Your task to perform on an android device: toggle improve location accuracy Image 0: 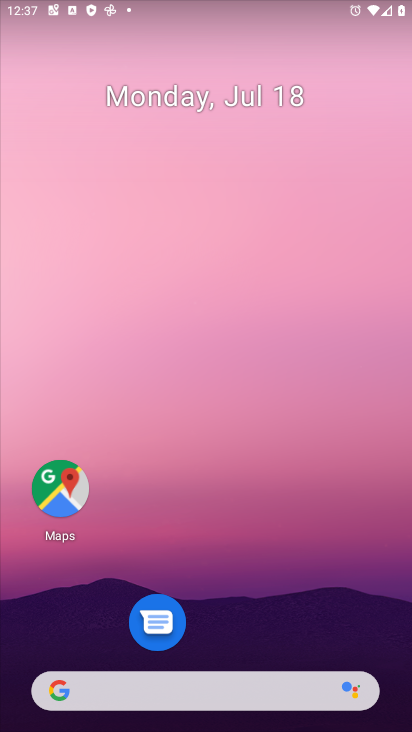
Step 0: drag from (274, 721) to (209, 243)
Your task to perform on an android device: toggle improve location accuracy Image 1: 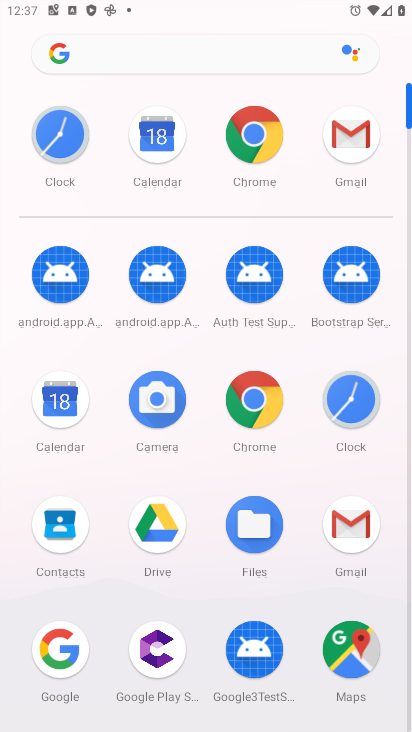
Step 1: drag from (267, 589) to (194, 153)
Your task to perform on an android device: toggle improve location accuracy Image 2: 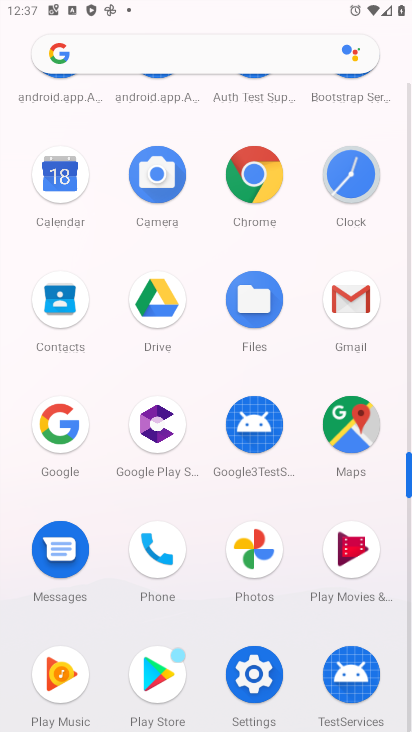
Step 2: click (257, 659)
Your task to perform on an android device: toggle improve location accuracy Image 3: 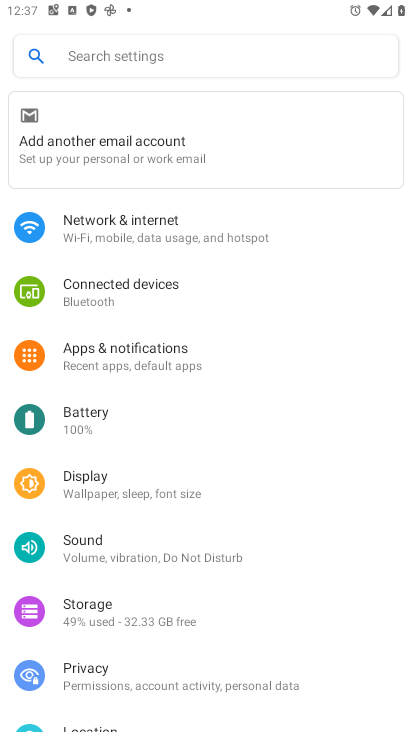
Step 3: drag from (227, 609) to (170, 154)
Your task to perform on an android device: toggle improve location accuracy Image 4: 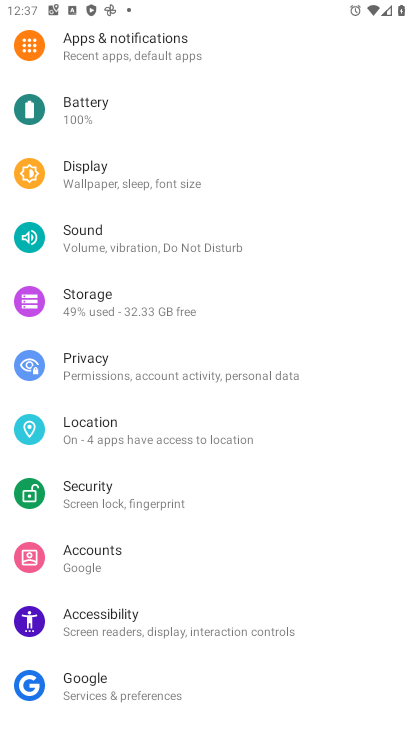
Step 4: click (148, 436)
Your task to perform on an android device: toggle improve location accuracy Image 5: 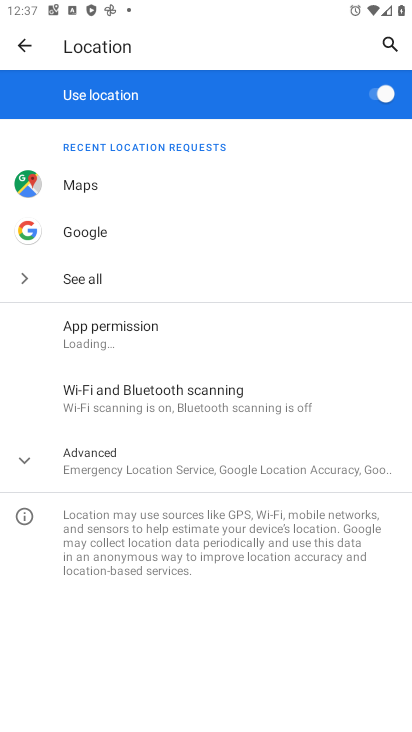
Step 5: click (263, 465)
Your task to perform on an android device: toggle improve location accuracy Image 6: 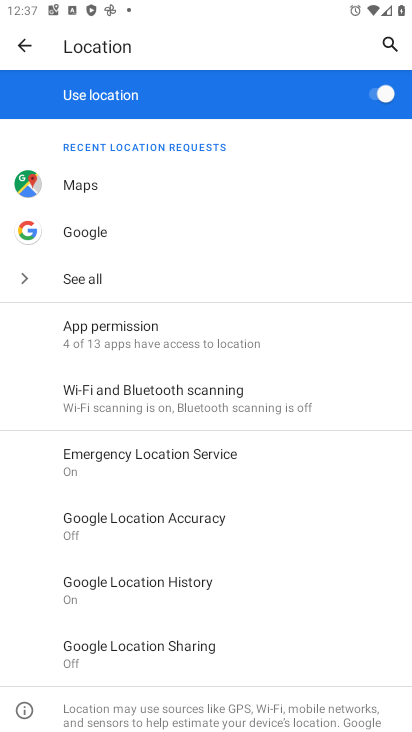
Step 6: click (197, 516)
Your task to perform on an android device: toggle improve location accuracy Image 7: 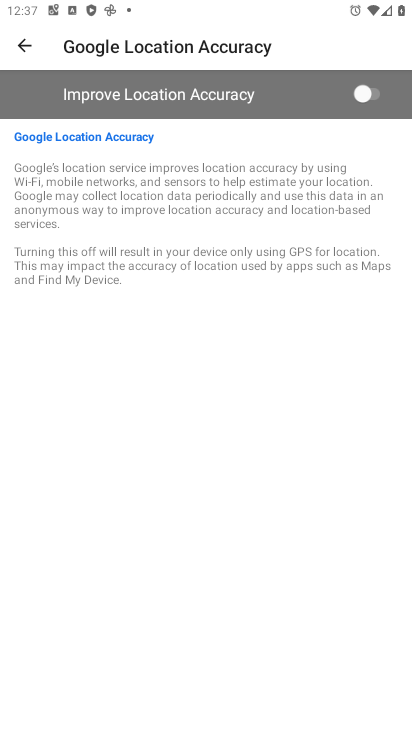
Step 7: click (363, 95)
Your task to perform on an android device: toggle improve location accuracy Image 8: 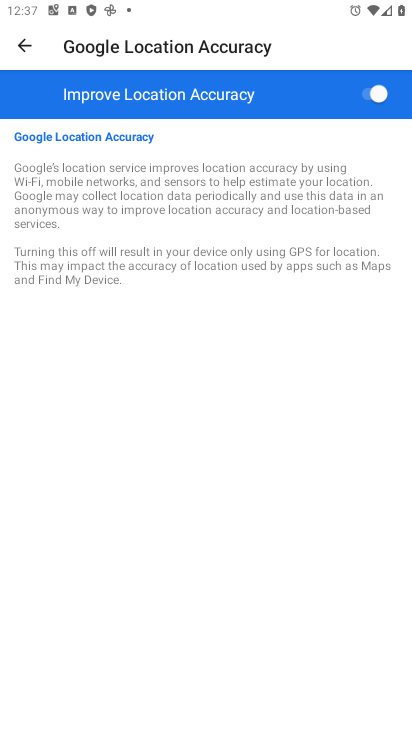
Step 8: task complete